Your task to perform on an android device: Go to Maps Image 0: 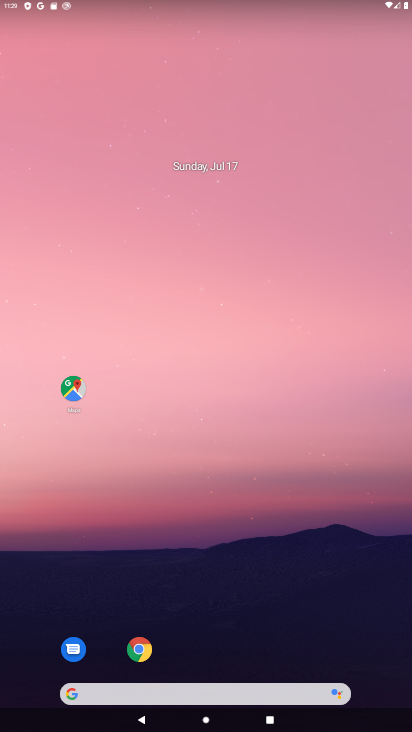
Step 0: click (78, 398)
Your task to perform on an android device: Go to Maps Image 1: 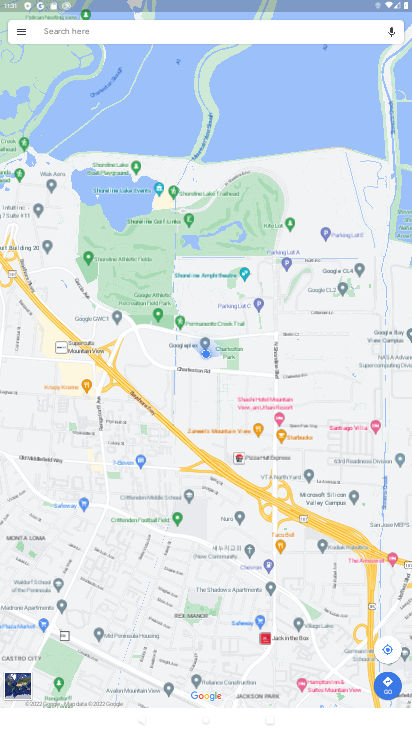
Step 1: task complete